Your task to perform on an android device: turn notification dots on Image 0: 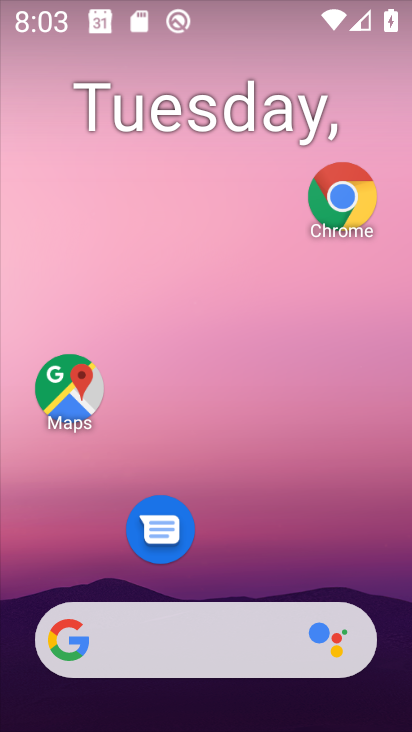
Step 0: drag from (223, 575) to (292, 15)
Your task to perform on an android device: turn notification dots on Image 1: 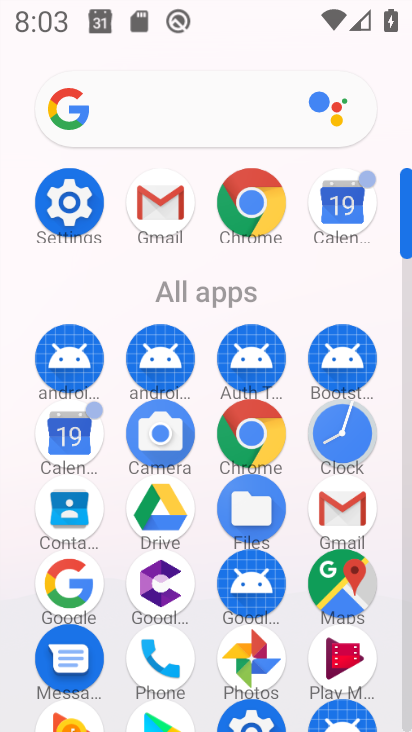
Step 1: click (59, 212)
Your task to perform on an android device: turn notification dots on Image 2: 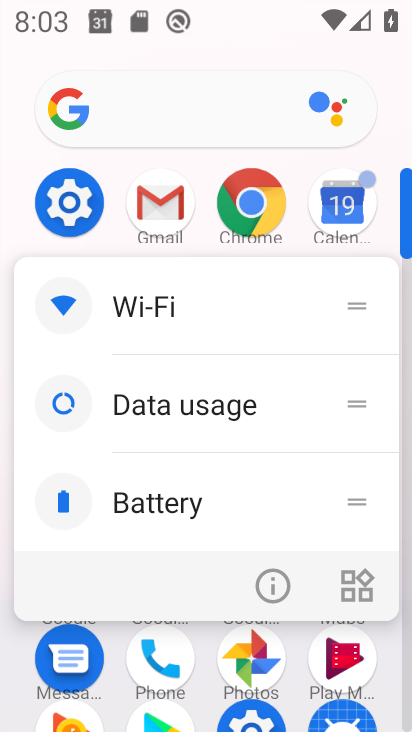
Step 2: click (59, 212)
Your task to perform on an android device: turn notification dots on Image 3: 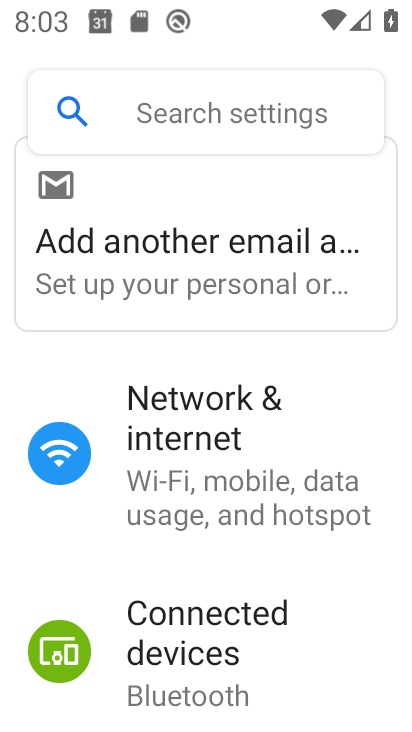
Step 3: drag from (172, 610) to (229, 132)
Your task to perform on an android device: turn notification dots on Image 4: 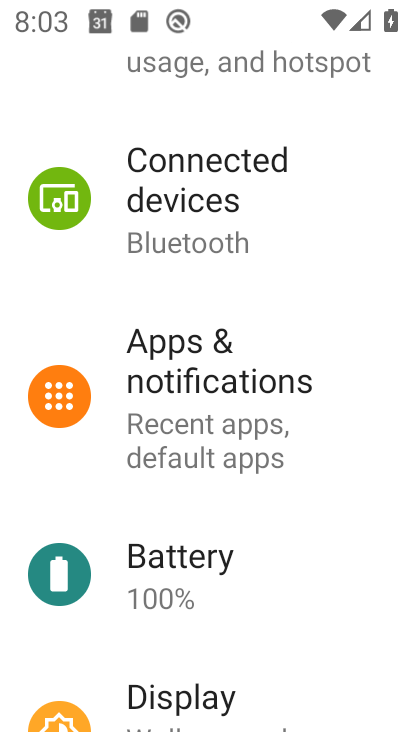
Step 4: click (188, 387)
Your task to perform on an android device: turn notification dots on Image 5: 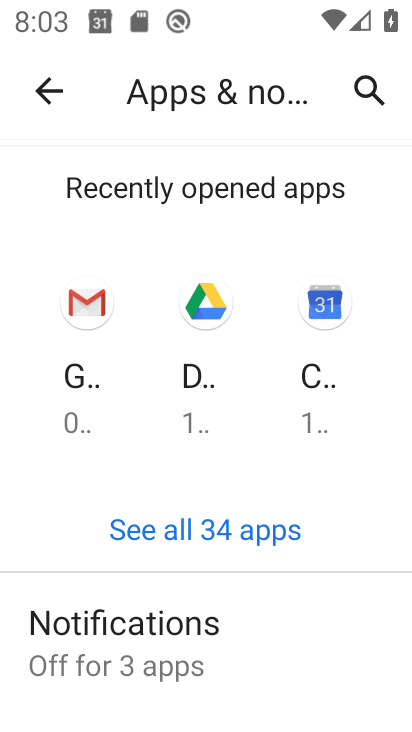
Step 5: click (115, 629)
Your task to perform on an android device: turn notification dots on Image 6: 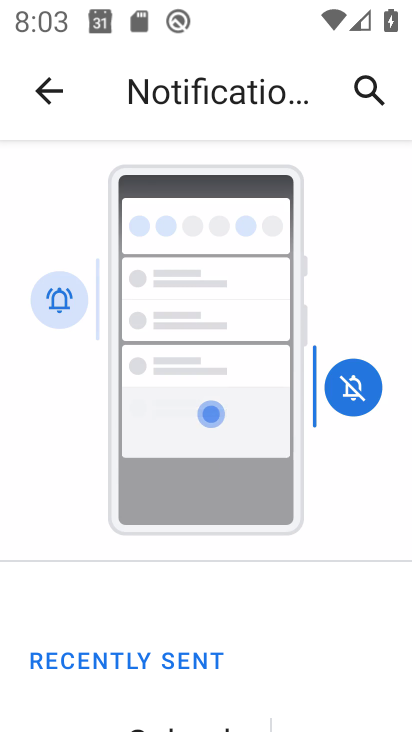
Step 6: drag from (153, 596) to (245, 31)
Your task to perform on an android device: turn notification dots on Image 7: 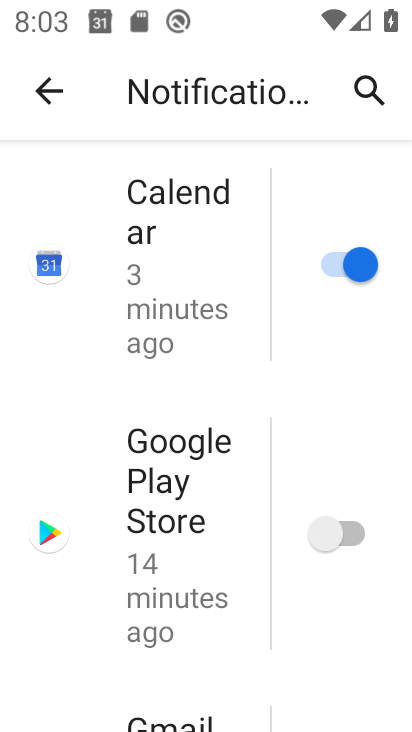
Step 7: drag from (117, 644) to (240, 132)
Your task to perform on an android device: turn notification dots on Image 8: 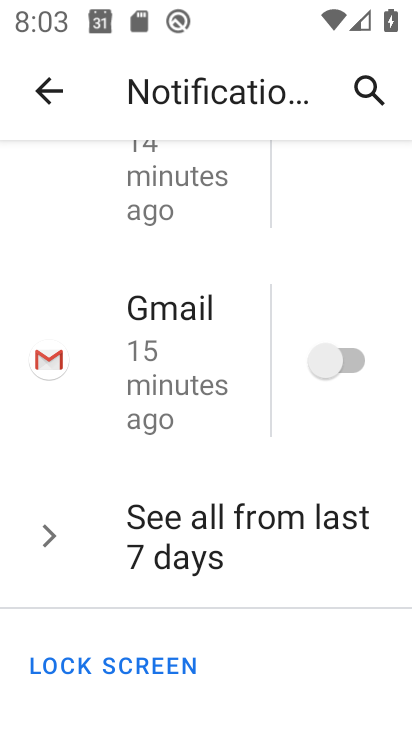
Step 8: drag from (187, 552) to (231, 103)
Your task to perform on an android device: turn notification dots on Image 9: 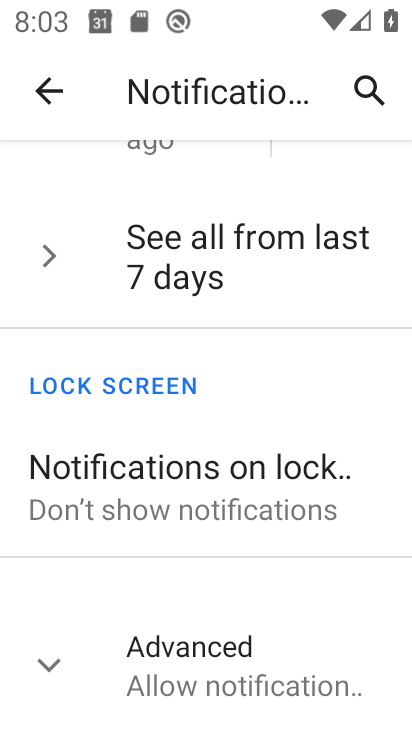
Step 9: click (122, 673)
Your task to perform on an android device: turn notification dots on Image 10: 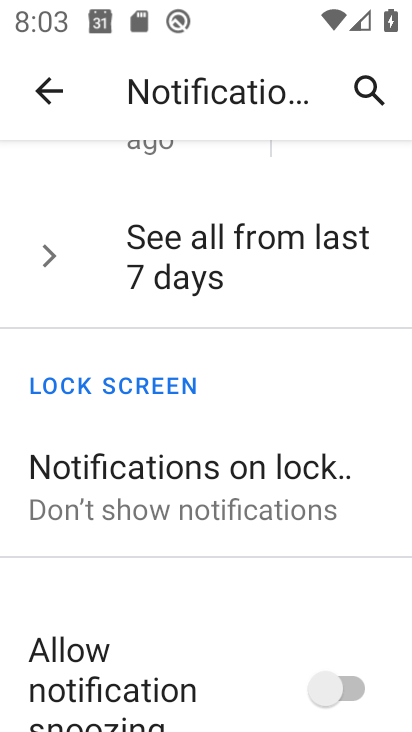
Step 10: task complete